Your task to perform on an android device: empty trash in google photos Image 0: 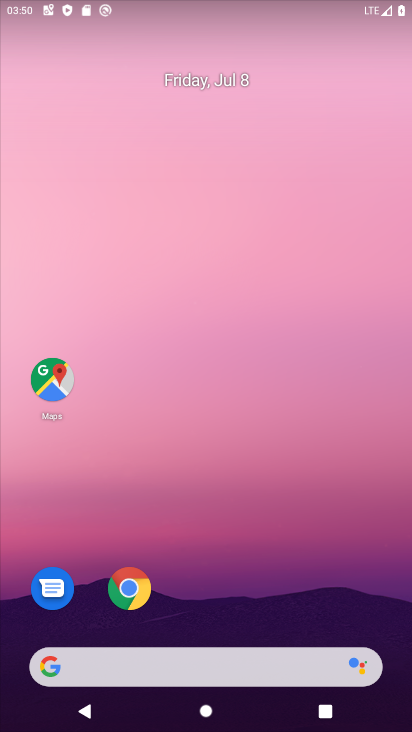
Step 0: drag from (165, 400) to (148, 110)
Your task to perform on an android device: empty trash in google photos Image 1: 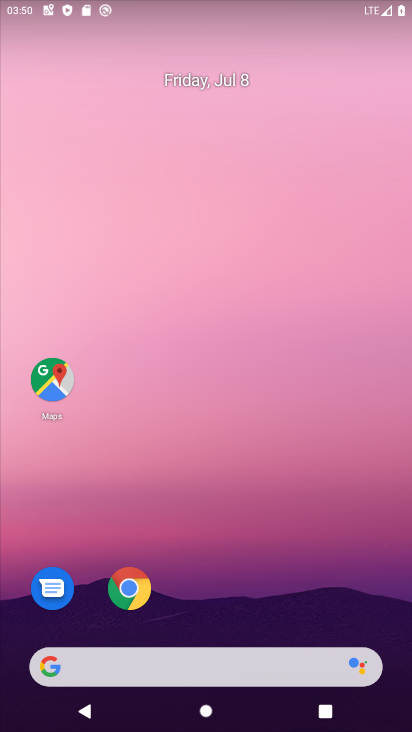
Step 1: drag from (229, 277) to (270, 34)
Your task to perform on an android device: empty trash in google photos Image 2: 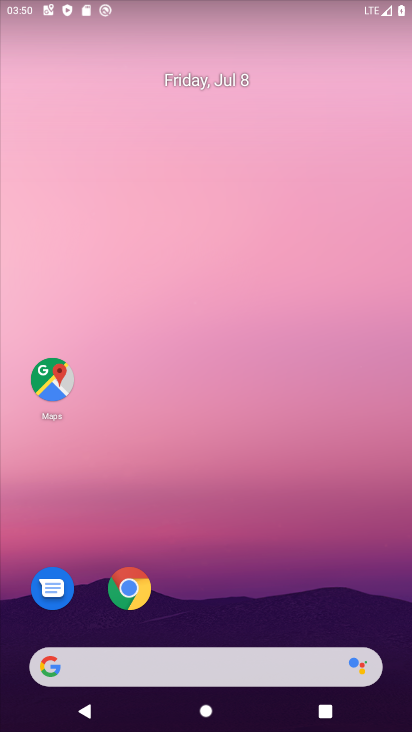
Step 2: drag from (221, 601) to (138, 208)
Your task to perform on an android device: empty trash in google photos Image 3: 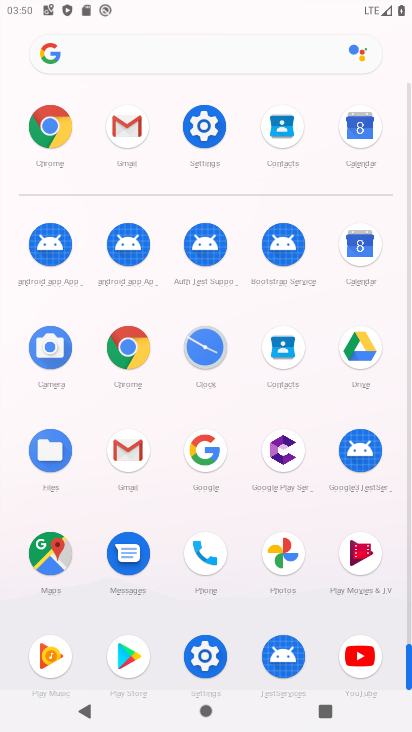
Step 3: click (282, 560)
Your task to perform on an android device: empty trash in google photos Image 4: 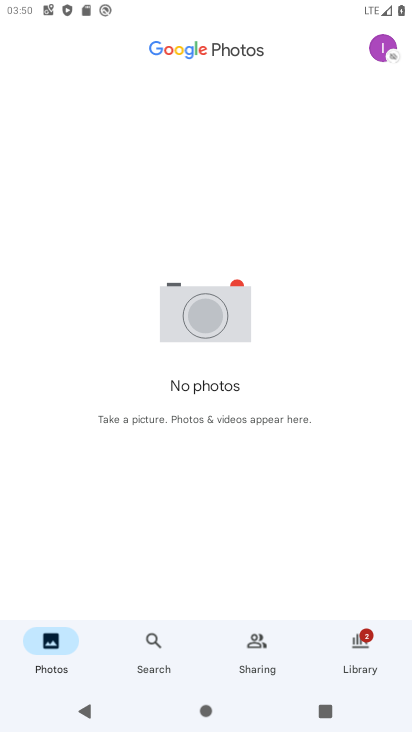
Step 4: click (387, 46)
Your task to perform on an android device: empty trash in google photos Image 5: 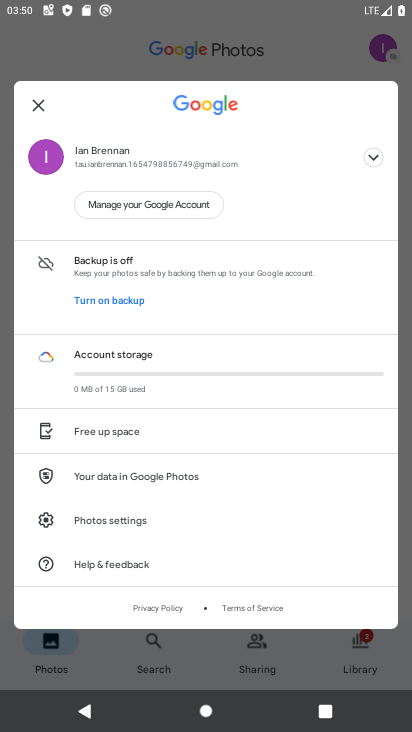
Step 5: click (364, 653)
Your task to perform on an android device: empty trash in google photos Image 6: 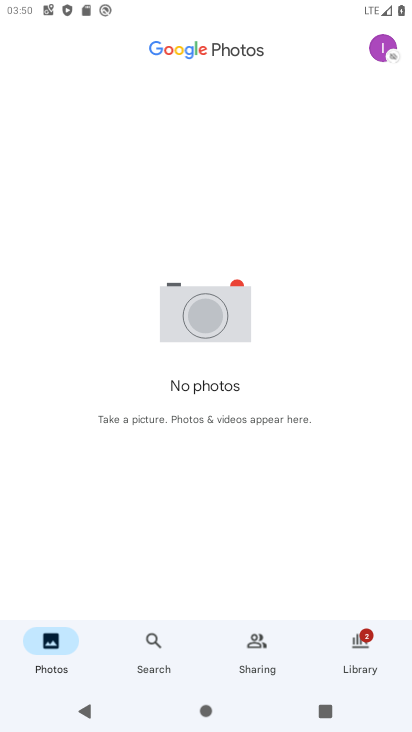
Step 6: click (363, 645)
Your task to perform on an android device: empty trash in google photos Image 7: 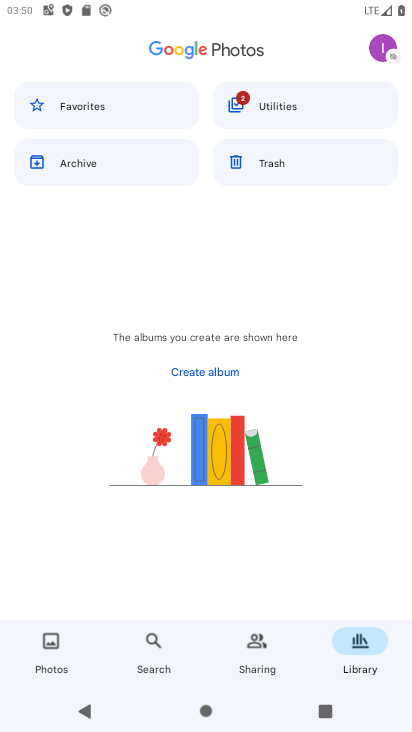
Step 7: click (253, 173)
Your task to perform on an android device: empty trash in google photos Image 8: 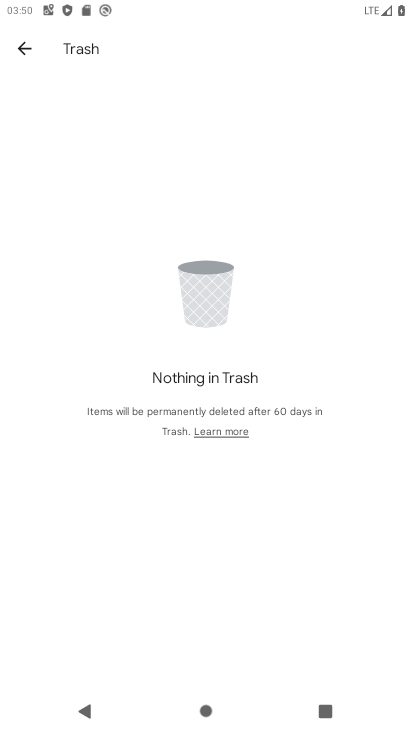
Step 8: task complete